Your task to perform on an android device: Open Google Chrome and click the shortcut for Amazon.com Image 0: 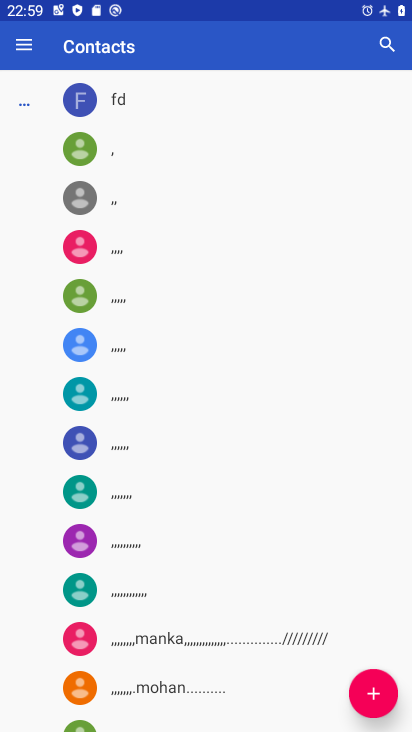
Step 0: press home button
Your task to perform on an android device: Open Google Chrome and click the shortcut for Amazon.com Image 1: 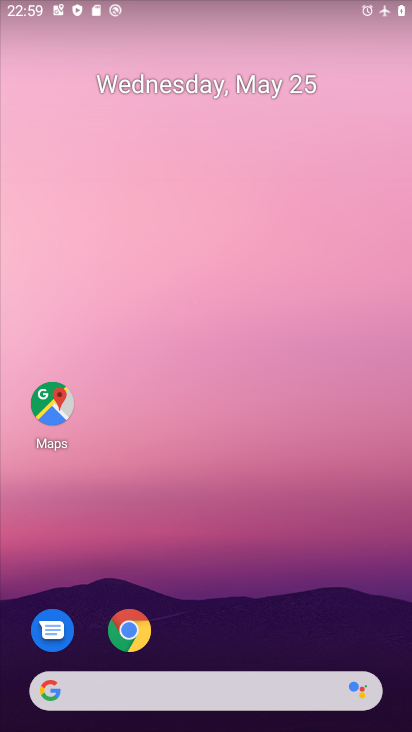
Step 1: click (144, 632)
Your task to perform on an android device: Open Google Chrome and click the shortcut for Amazon.com Image 2: 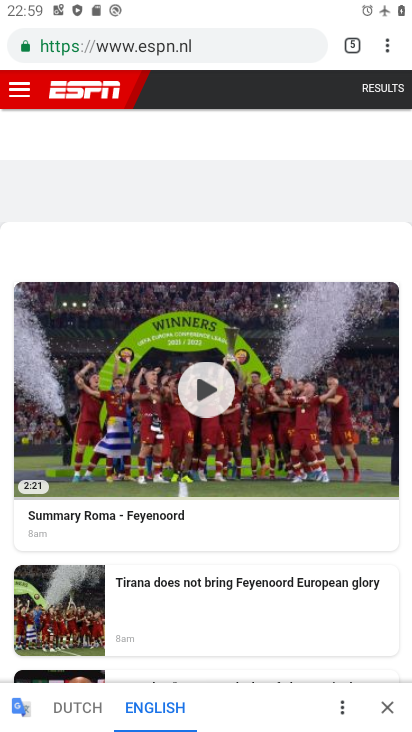
Step 2: click (350, 41)
Your task to perform on an android device: Open Google Chrome and click the shortcut for Amazon.com Image 3: 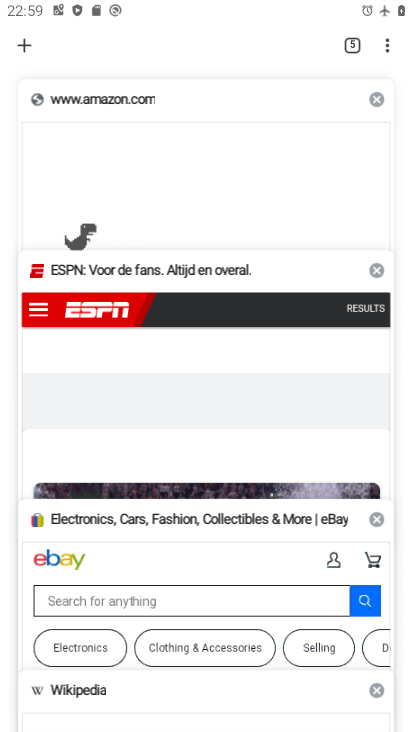
Step 3: click (229, 124)
Your task to perform on an android device: Open Google Chrome and click the shortcut for Amazon.com Image 4: 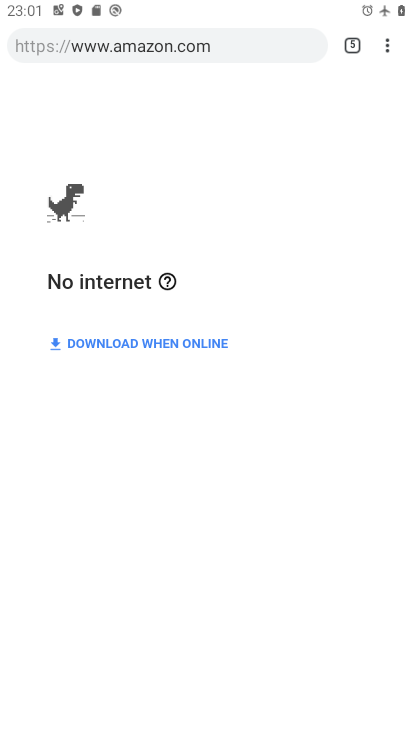
Step 4: task complete